Your task to perform on an android device: find which apps use the phone's location Image 0: 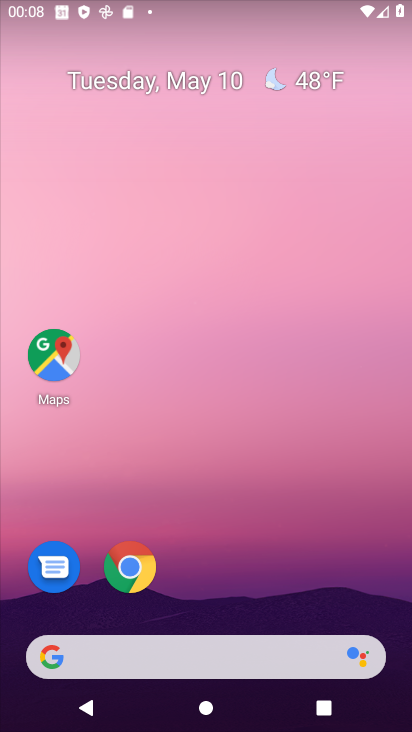
Step 0: drag from (283, 569) to (207, 85)
Your task to perform on an android device: find which apps use the phone's location Image 1: 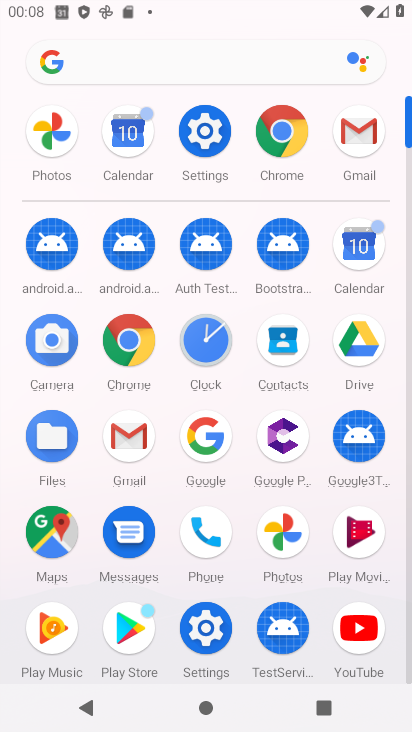
Step 1: click (203, 131)
Your task to perform on an android device: find which apps use the phone's location Image 2: 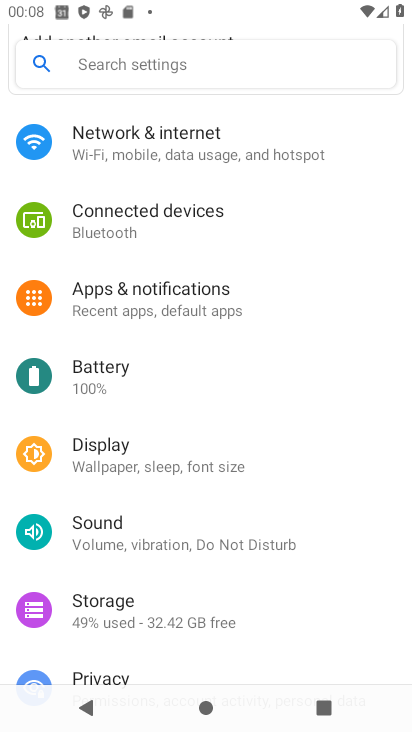
Step 2: drag from (167, 484) to (203, 370)
Your task to perform on an android device: find which apps use the phone's location Image 3: 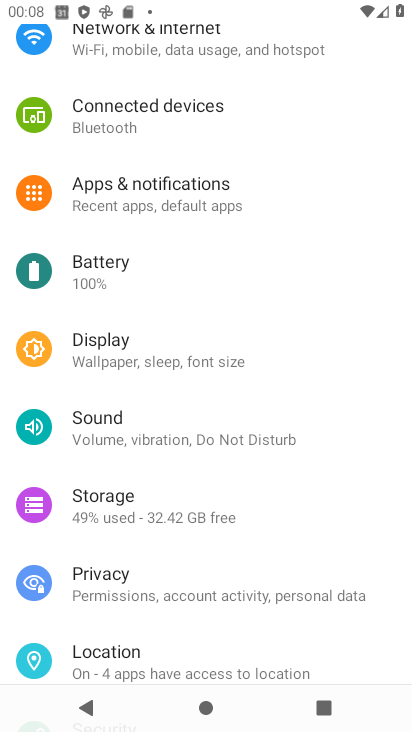
Step 3: drag from (162, 480) to (219, 339)
Your task to perform on an android device: find which apps use the phone's location Image 4: 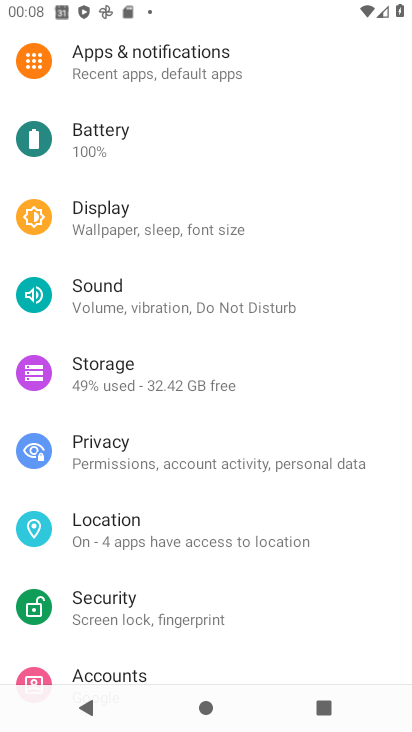
Step 4: click (132, 522)
Your task to perform on an android device: find which apps use the phone's location Image 5: 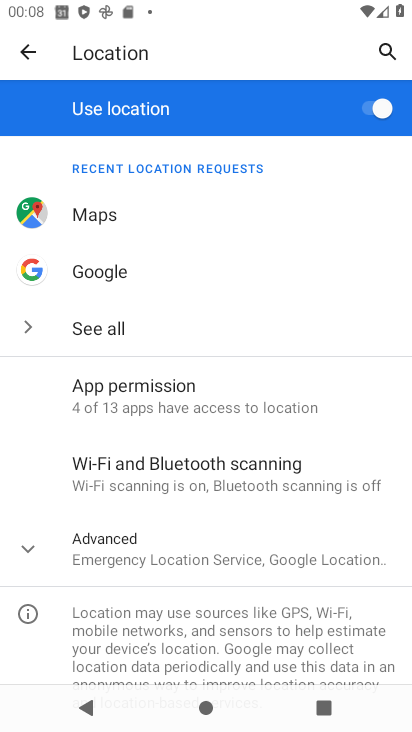
Step 5: click (155, 413)
Your task to perform on an android device: find which apps use the phone's location Image 6: 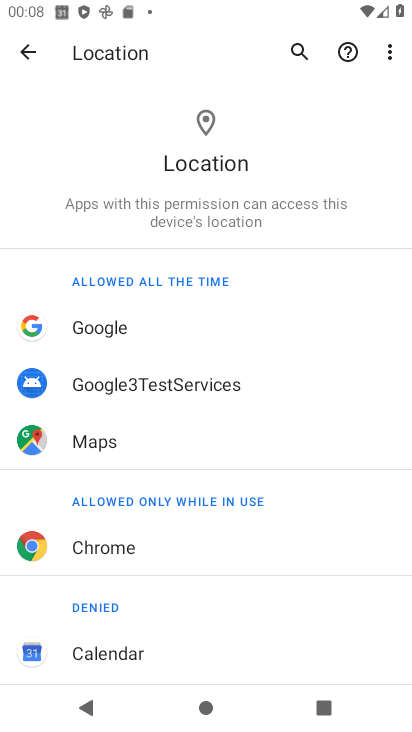
Step 6: click (77, 447)
Your task to perform on an android device: find which apps use the phone's location Image 7: 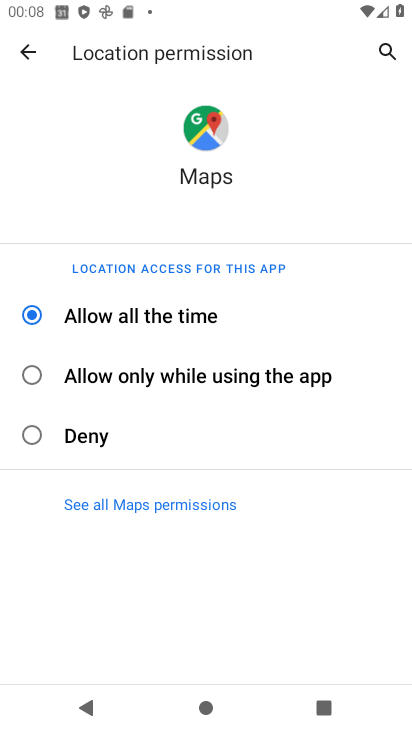
Step 7: task complete